Your task to perform on an android device: Open Chrome and go to settings Image 0: 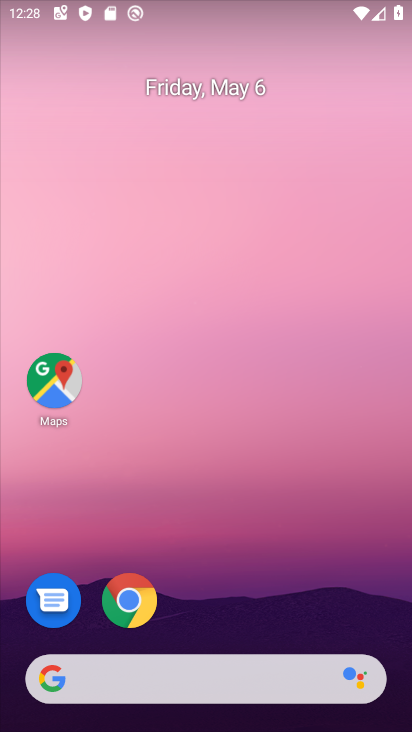
Step 0: drag from (327, 599) to (341, 56)
Your task to perform on an android device: Open Chrome and go to settings Image 1: 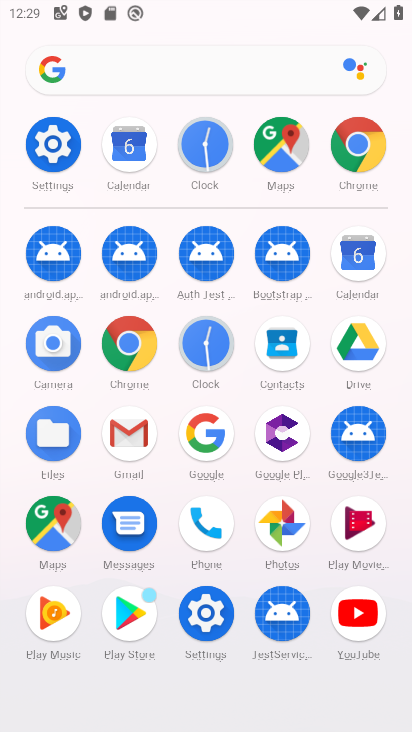
Step 1: click (106, 333)
Your task to perform on an android device: Open Chrome and go to settings Image 2: 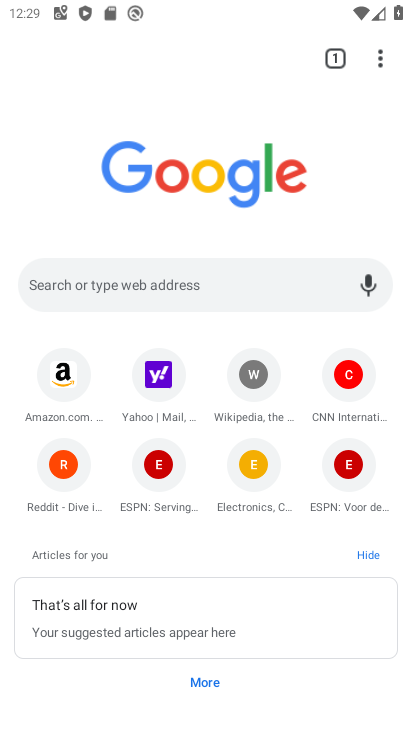
Step 2: click (374, 56)
Your task to perform on an android device: Open Chrome and go to settings Image 3: 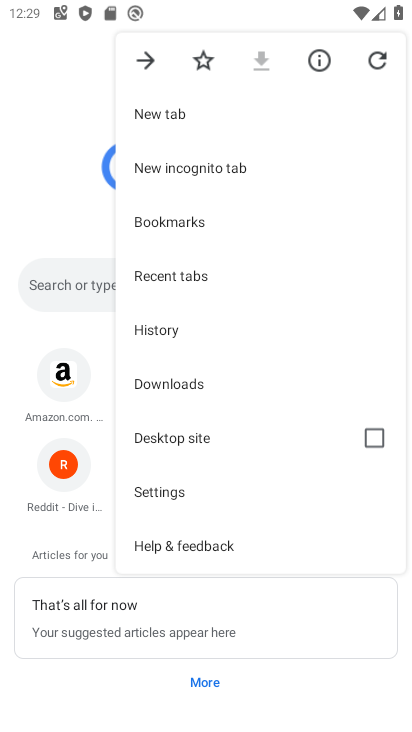
Step 3: click (195, 500)
Your task to perform on an android device: Open Chrome and go to settings Image 4: 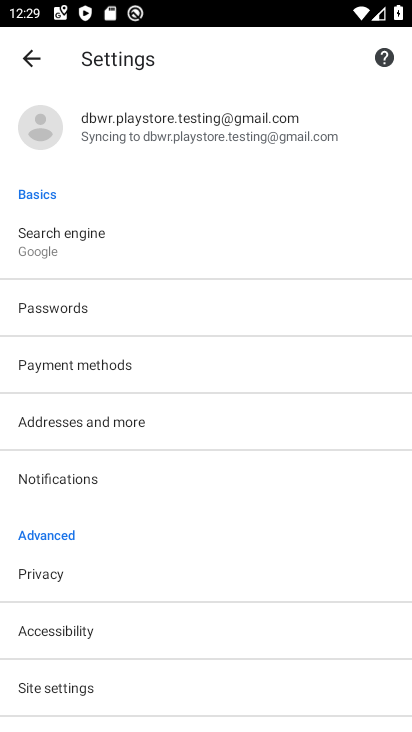
Step 4: task complete